Your task to perform on an android device: turn on bluetooth scan Image 0: 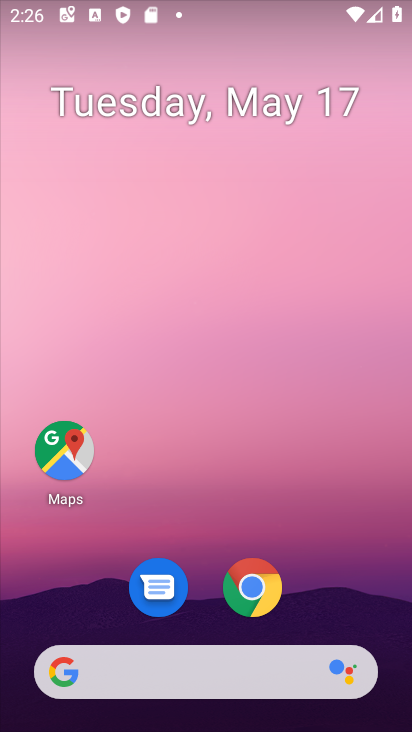
Step 0: drag from (201, 630) to (203, 110)
Your task to perform on an android device: turn on bluetooth scan Image 1: 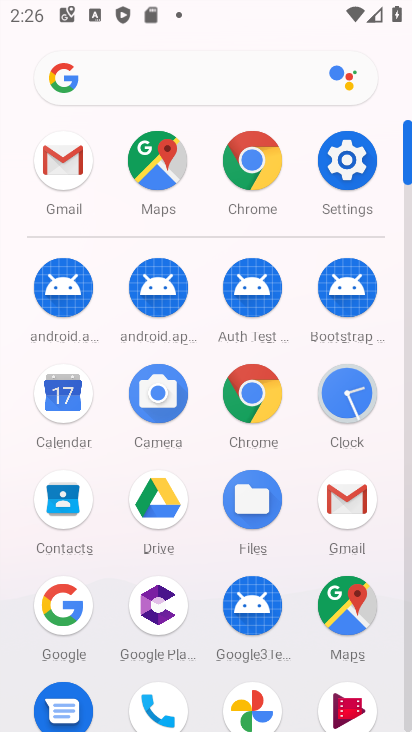
Step 1: click (353, 162)
Your task to perform on an android device: turn on bluetooth scan Image 2: 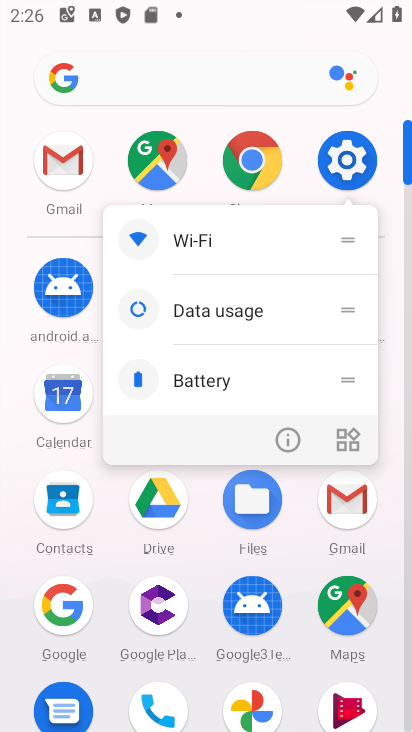
Step 2: click (271, 443)
Your task to perform on an android device: turn on bluetooth scan Image 3: 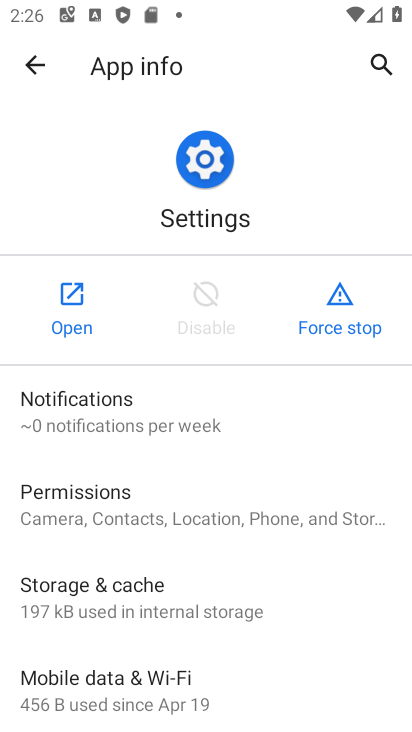
Step 3: click (75, 313)
Your task to perform on an android device: turn on bluetooth scan Image 4: 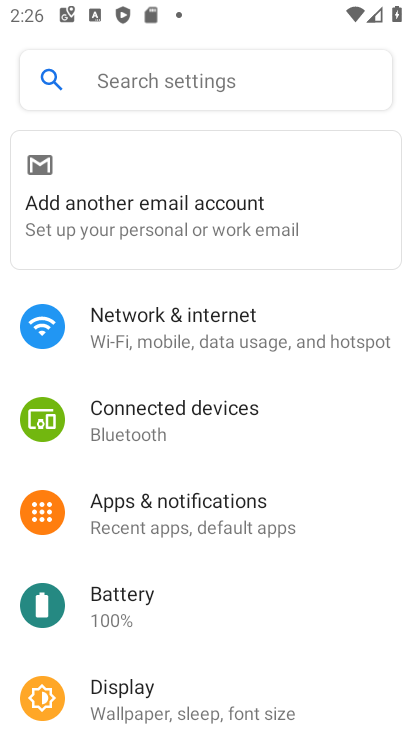
Step 4: click (174, 69)
Your task to perform on an android device: turn on bluetooth scan Image 5: 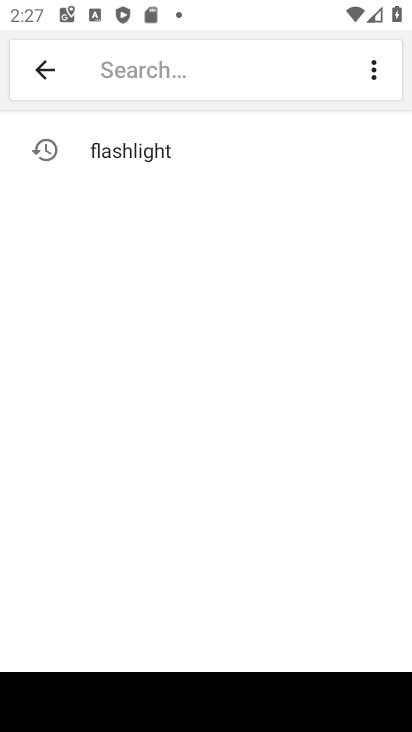
Step 5: type "bluetooth scan"
Your task to perform on an android device: turn on bluetooth scan Image 6: 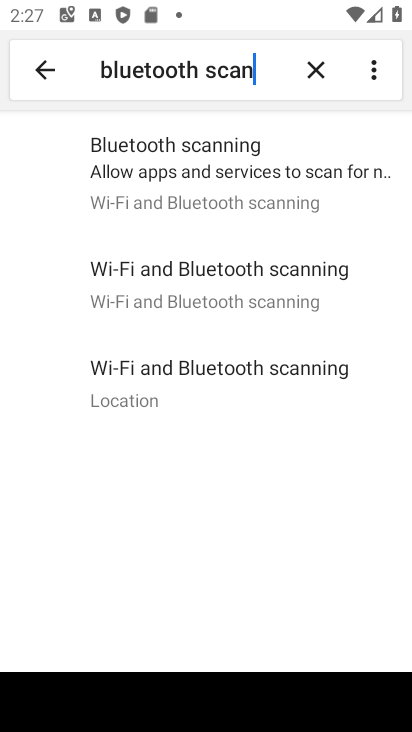
Step 6: click (182, 171)
Your task to perform on an android device: turn on bluetooth scan Image 7: 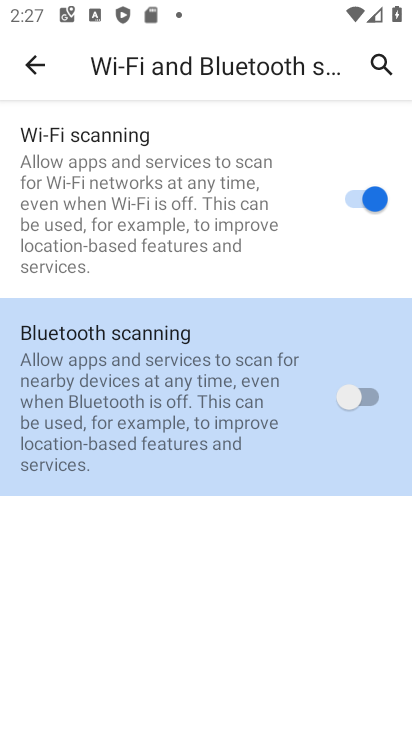
Step 7: click (314, 409)
Your task to perform on an android device: turn on bluetooth scan Image 8: 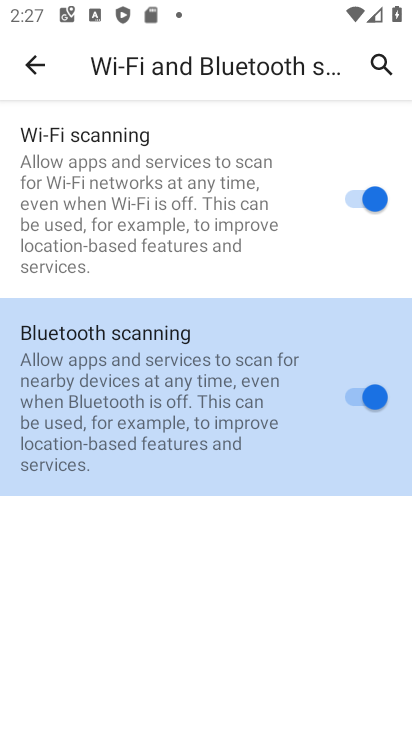
Step 8: task complete